Your task to perform on an android device: Go to Maps Image 0: 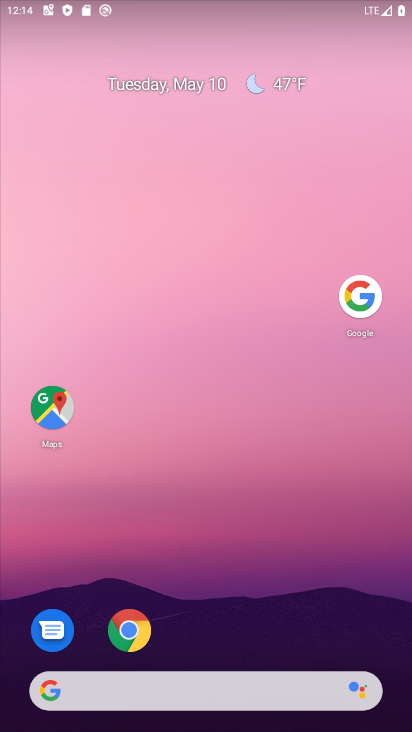
Step 0: click (44, 405)
Your task to perform on an android device: Go to Maps Image 1: 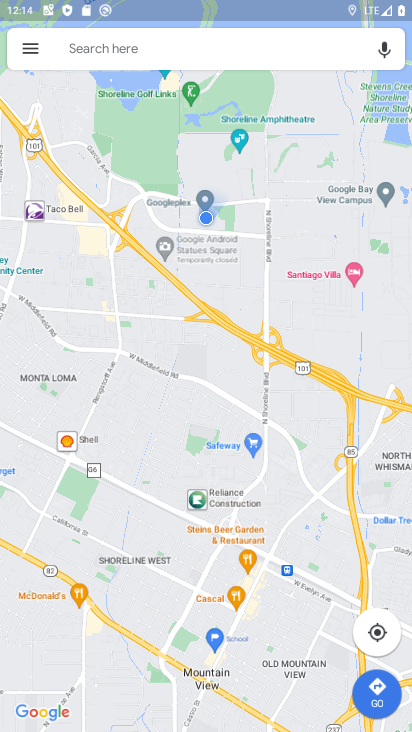
Step 1: task complete